Your task to perform on an android device: turn on improve location accuracy Image 0: 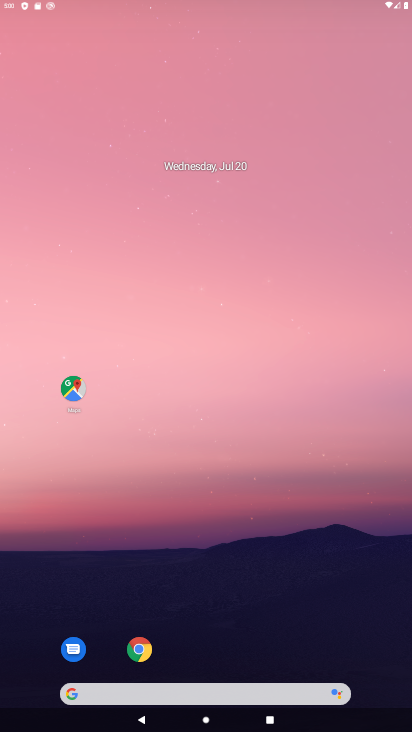
Step 0: drag from (267, 484) to (240, 47)
Your task to perform on an android device: turn on improve location accuracy Image 1: 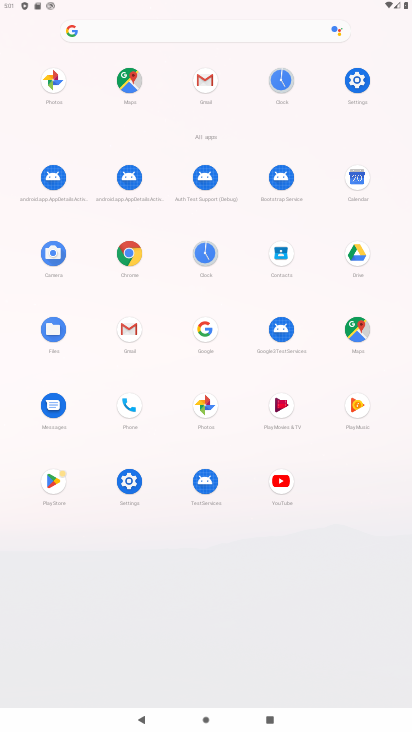
Step 1: click (356, 77)
Your task to perform on an android device: turn on improve location accuracy Image 2: 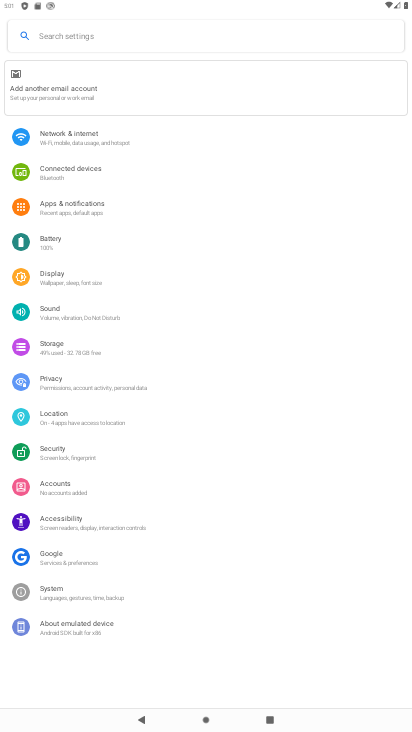
Step 2: click (72, 410)
Your task to perform on an android device: turn on improve location accuracy Image 3: 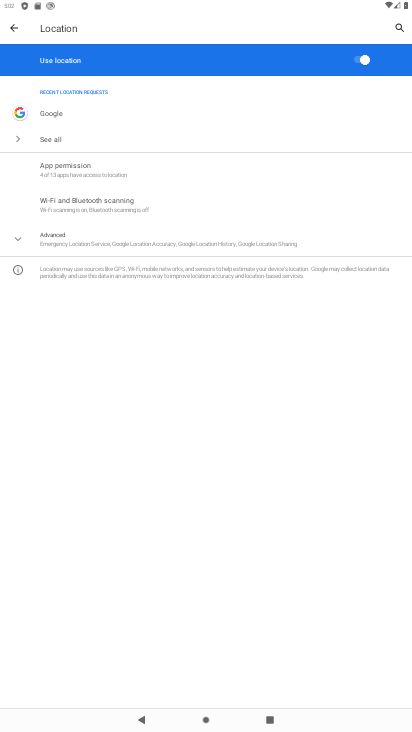
Step 3: click (62, 242)
Your task to perform on an android device: turn on improve location accuracy Image 4: 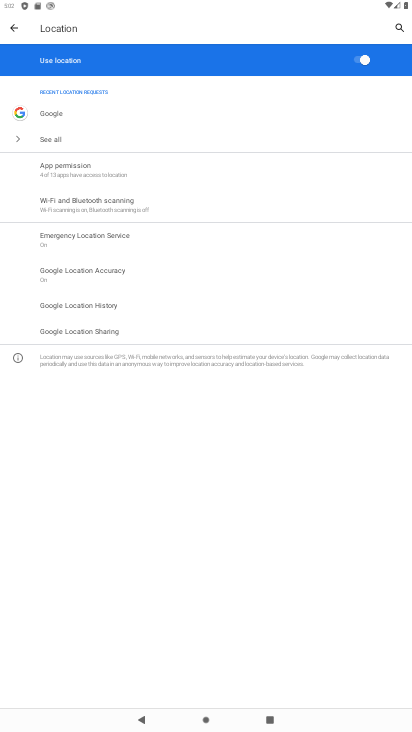
Step 4: click (94, 269)
Your task to perform on an android device: turn on improve location accuracy Image 5: 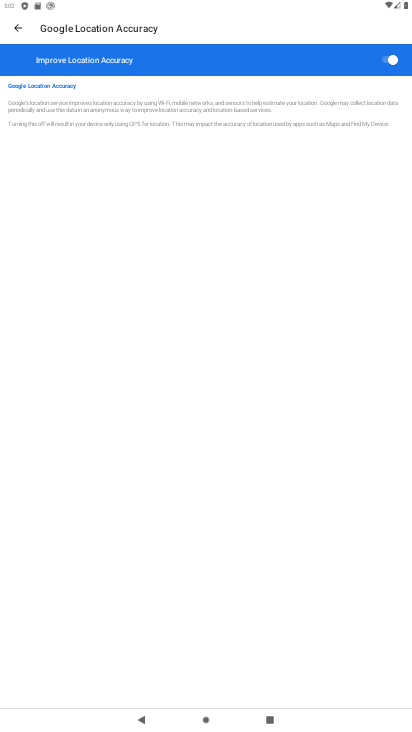
Step 5: task complete